Your task to perform on an android device: add a contact in the contacts app Image 0: 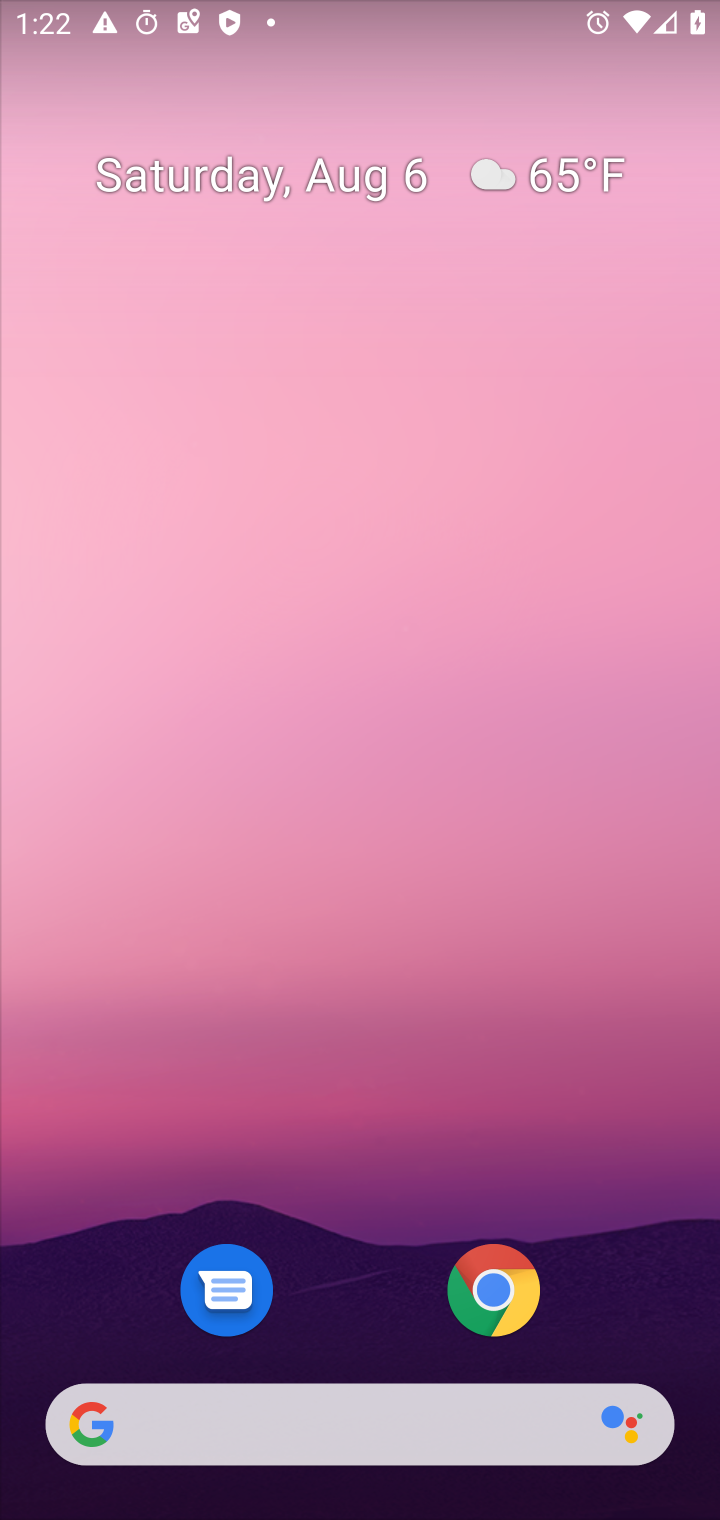
Step 0: press home button
Your task to perform on an android device: add a contact in the contacts app Image 1: 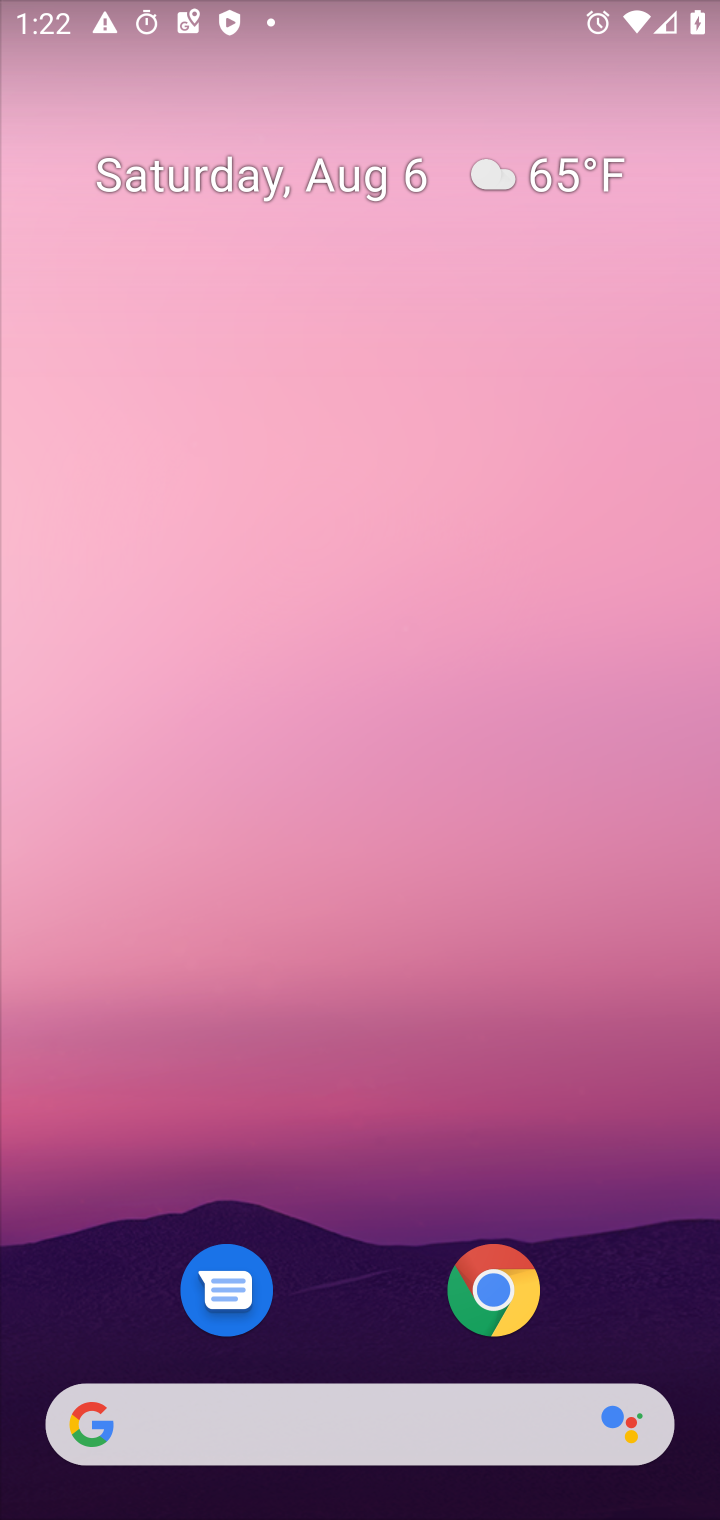
Step 1: drag from (359, 1316) to (448, 135)
Your task to perform on an android device: add a contact in the contacts app Image 2: 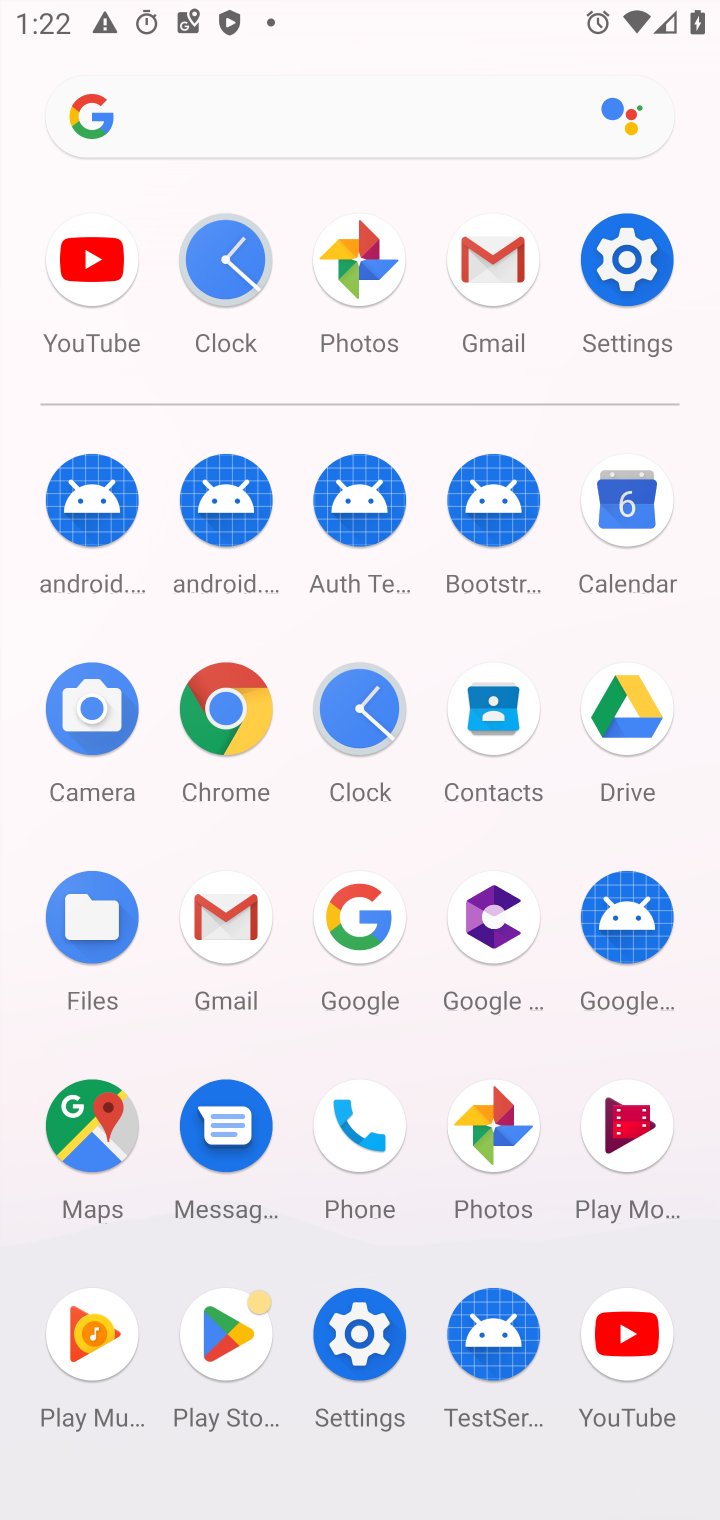
Step 2: click (490, 696)
Your task to perform on an android device: add a contact in the contacts app Image 3: 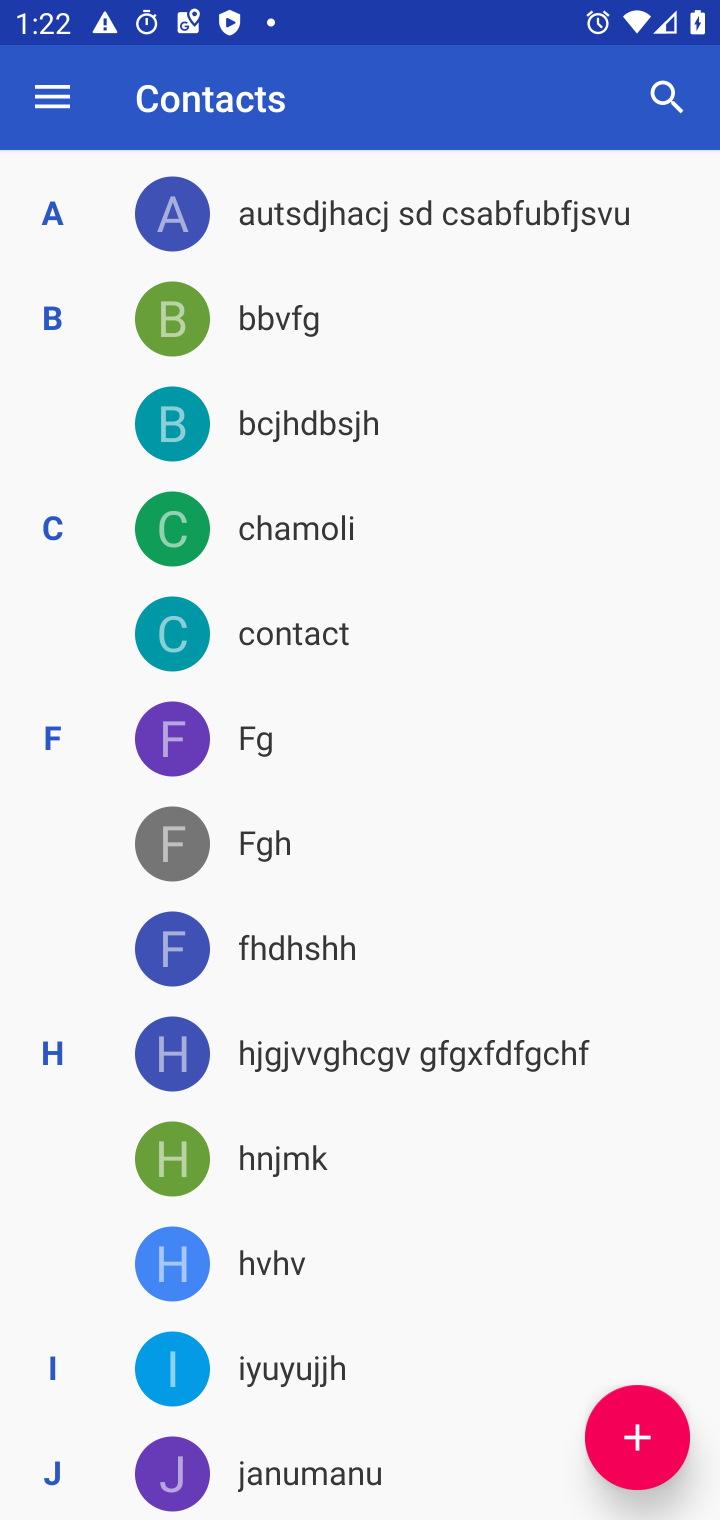
Step 3: click (622, 1429)
Your task to perform on an android device: add a contact in the contacts app Image 4: 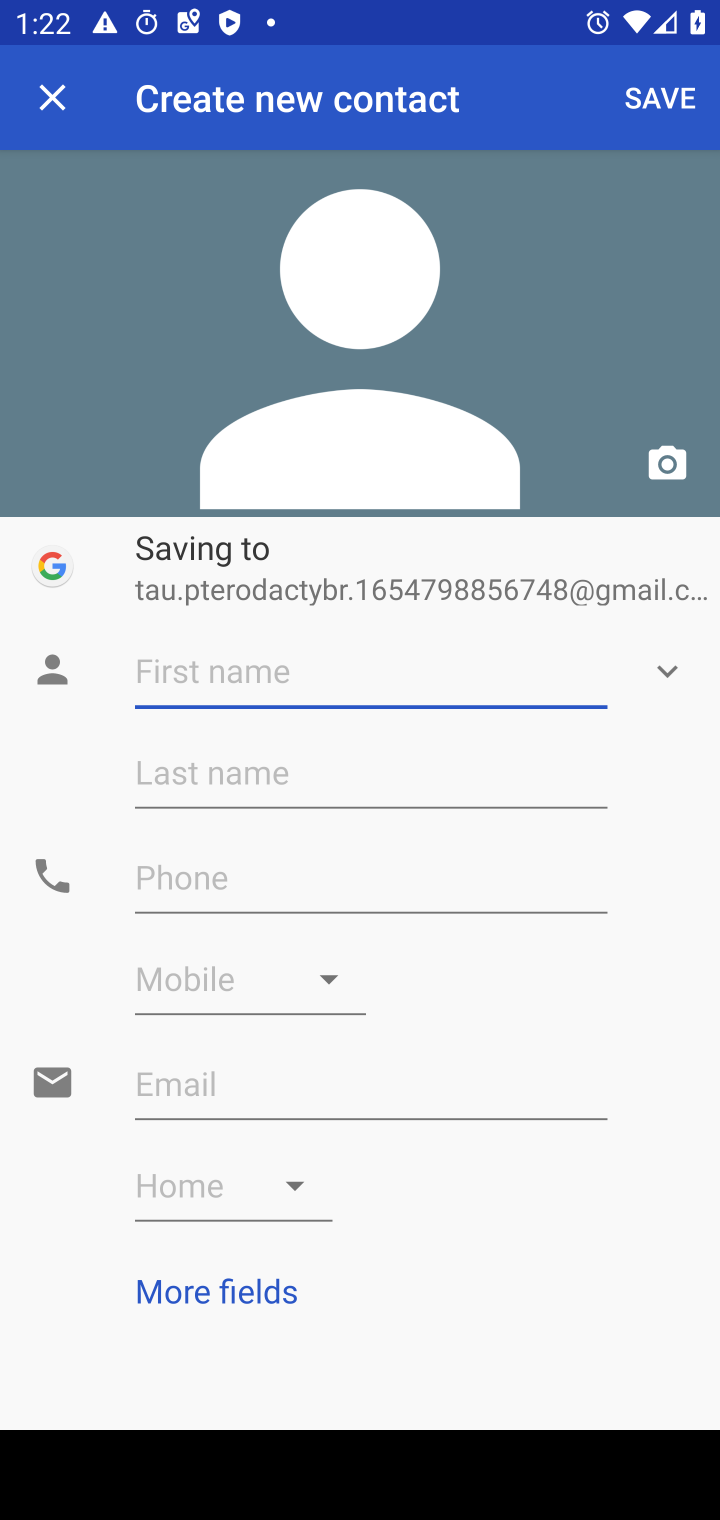
Step 4: type "aprnkt"
Your task to perform on an android device: add a contact in the contacts app Image 5: 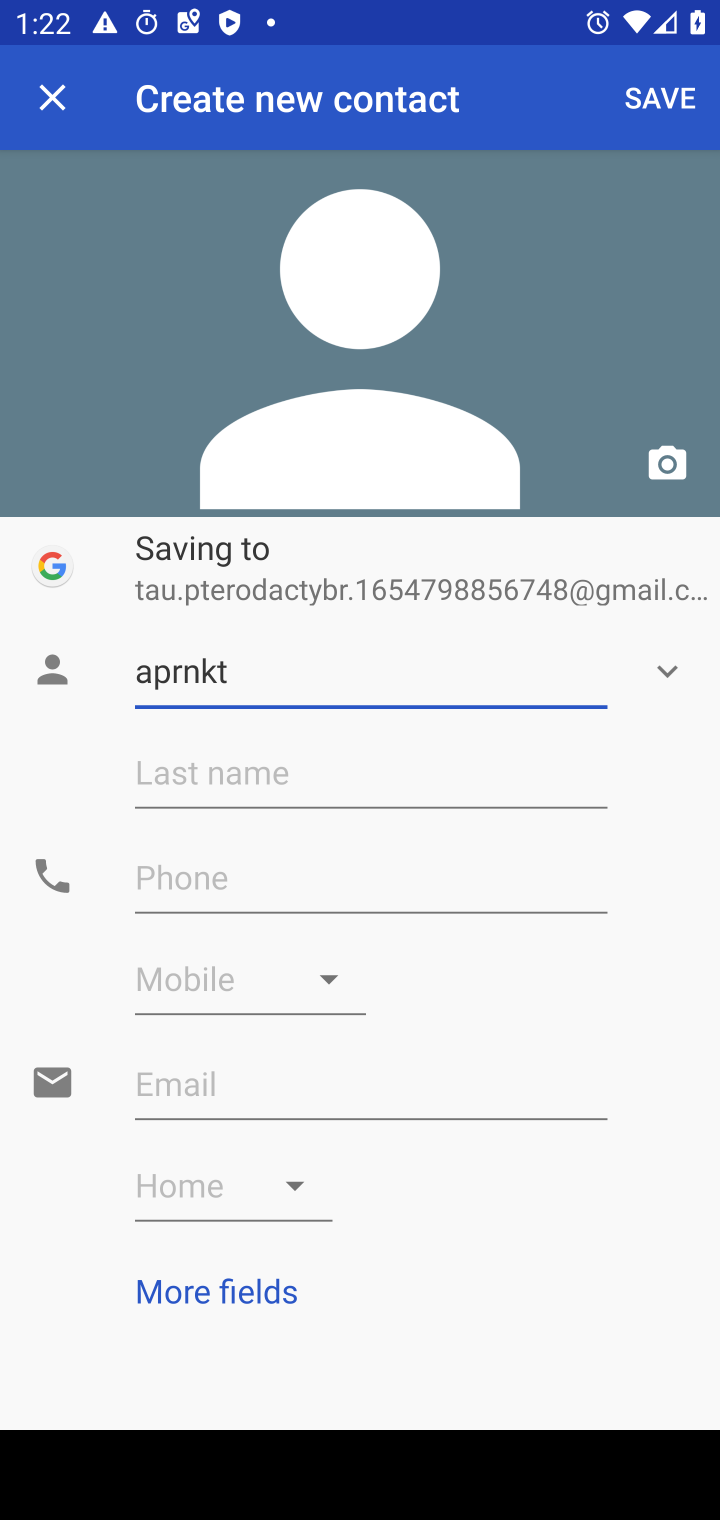
Step 5: click (666, 97)
Your task to perform on an android device: add a contact in the contacts app Image 6: 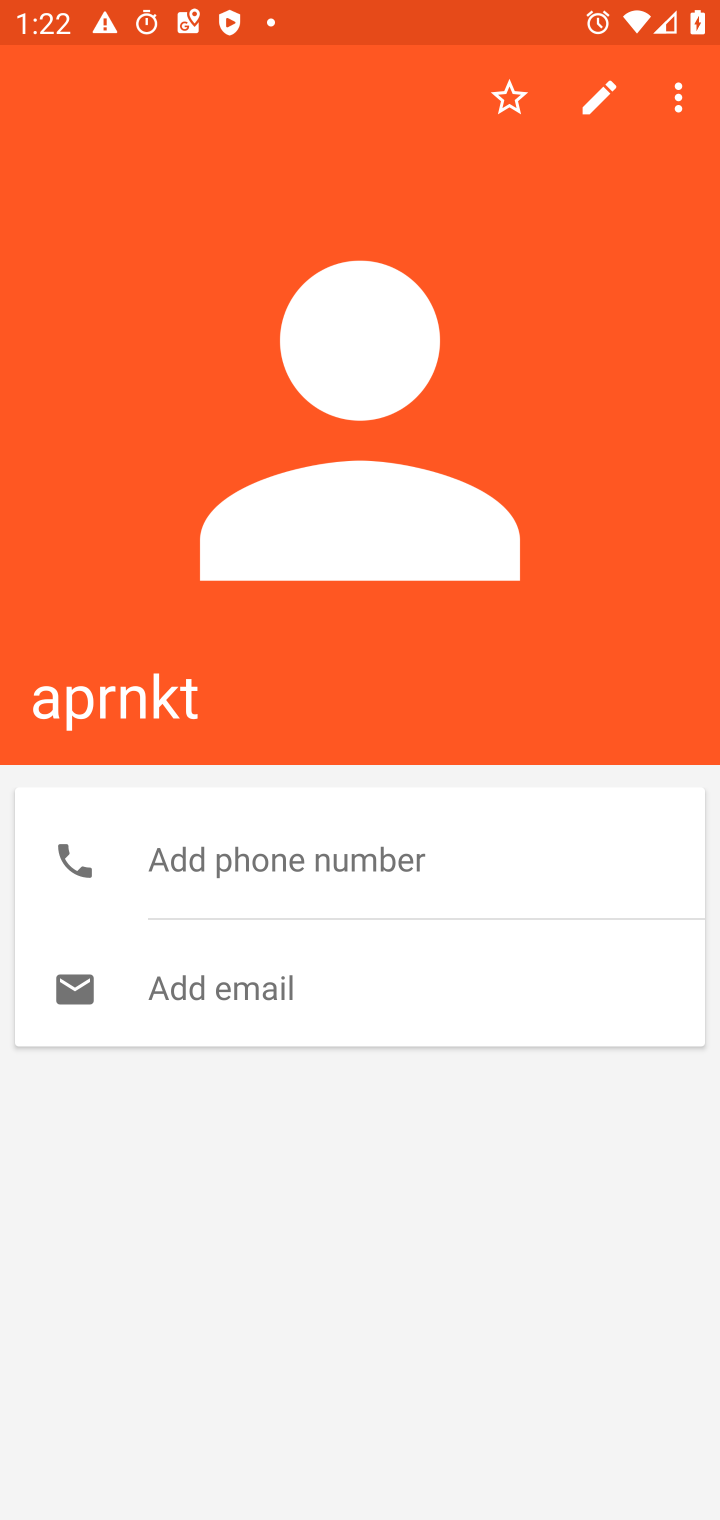
Step 6: task complete